Your task to perform on an android device: star an email in the gmail app Image 0: 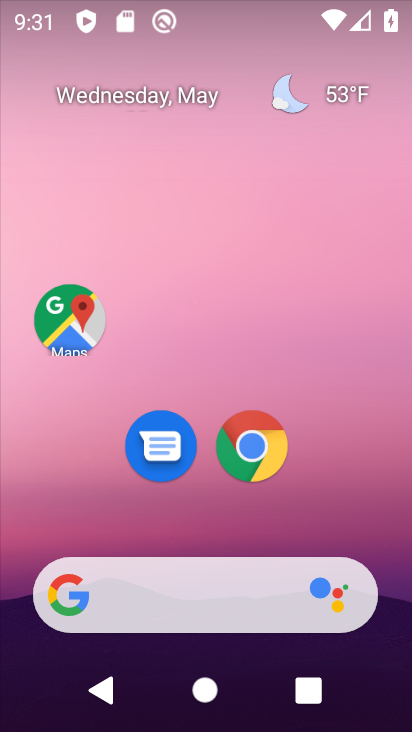
Step 0: drag from (368, 538) to (323, 181)
Your task to perform on an android device: star an email in the gmail app Image 1: 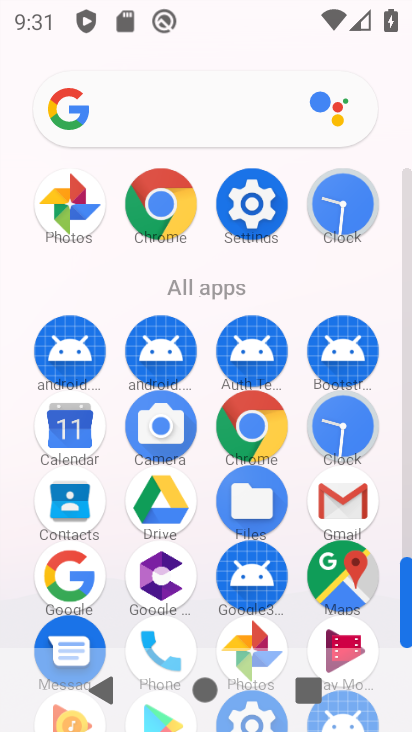
Step 1: click (357, 508)
Your task to perform on an android device: star an email in the gmail app Image 2: 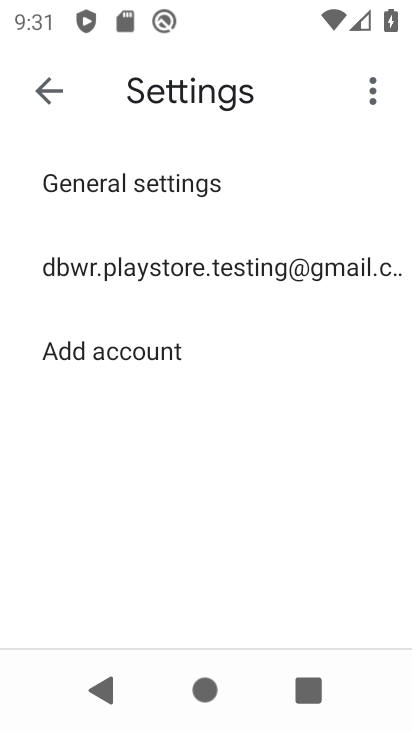
Step 2: click (217, 276)
Your task to perform on an android device: star an email in the gmail app Image 3: 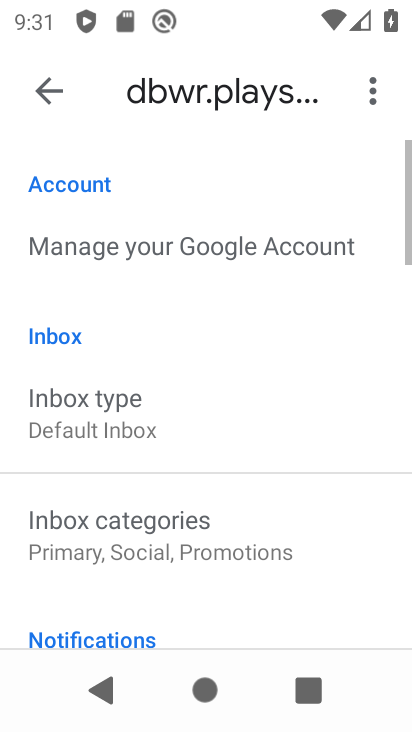
Step 3: click (50, 81)
Your task to perform on an android device: star an email in the gmail app Image 4: 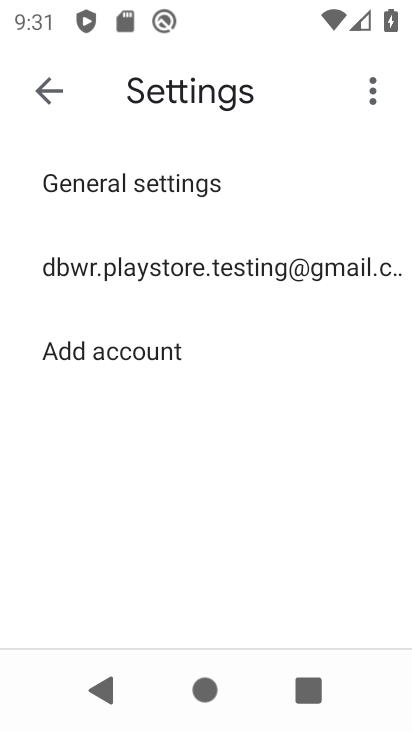
Step 4: click (50, 81)
Your task to perform on an android device: star an email in the gmail app Image 5: 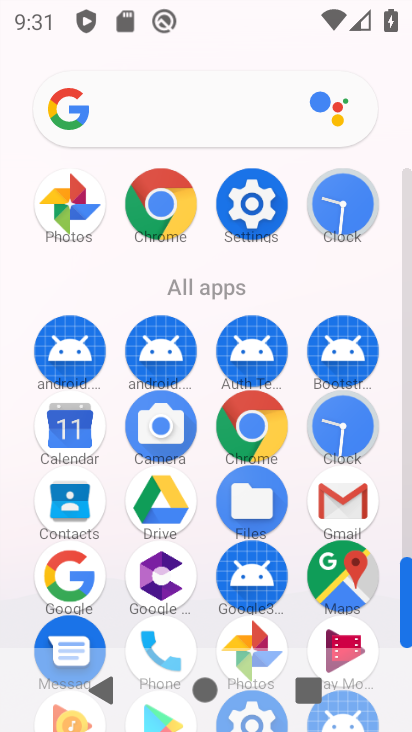
Step 5: click (314, 503)
Your task to perform on an android device: star an email in the gmail app Image 6: 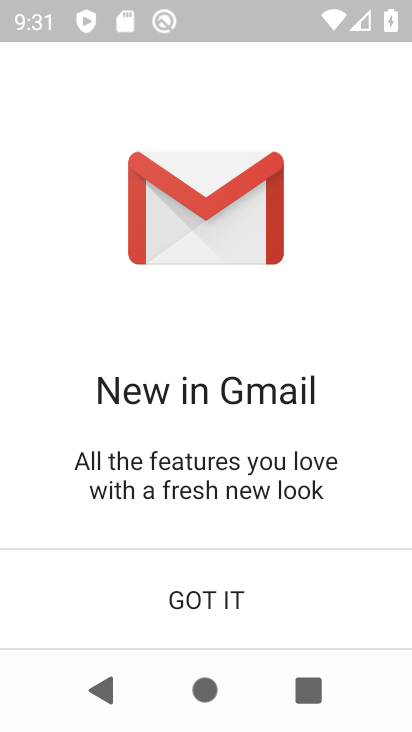
Step 6: click (236, 575)
Your task to perform on an android device: star an email in the gmail app Image 7: 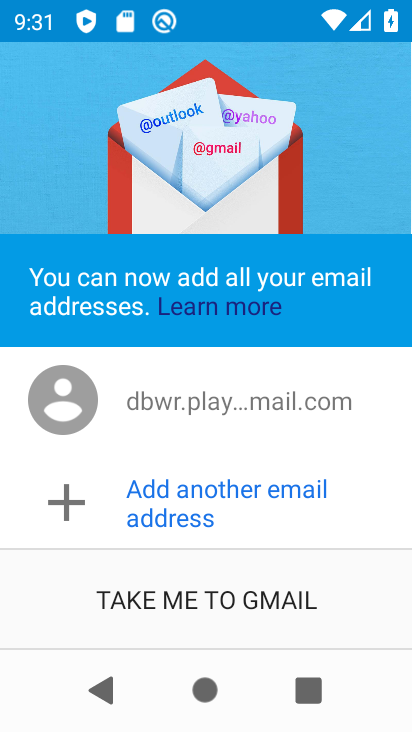
Step 7: click (237, 585)
Your task to perform on an android device: star an email in the gmail app Image 8: 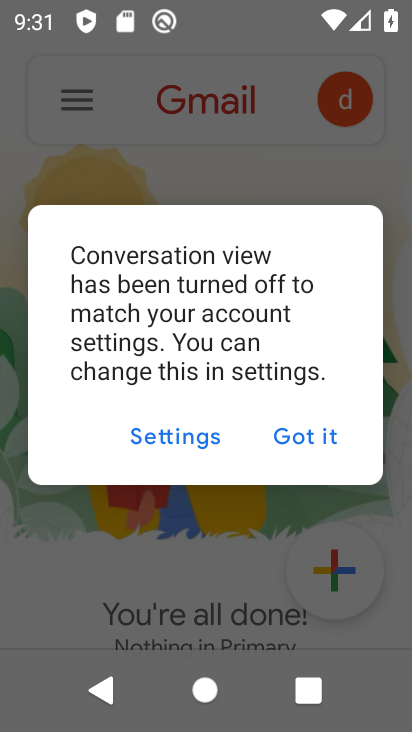
Step 8: click (302, 427)
Your task to perform on an android device: star an email in the gmail app Image 9: 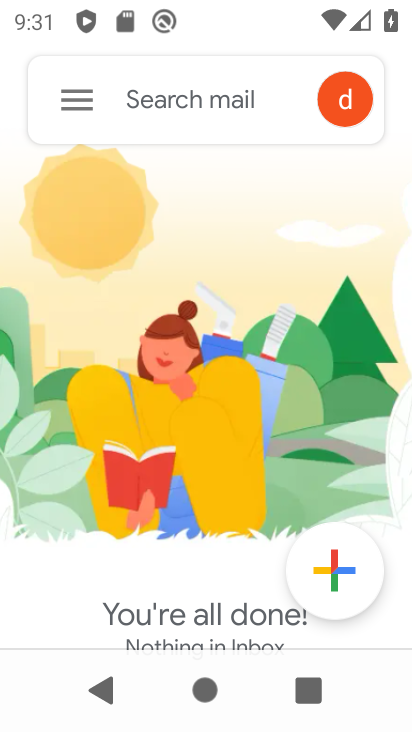
Step 9: click (81, 95)
Your task to perform on an android device: star an email in the gmail app Image 10: 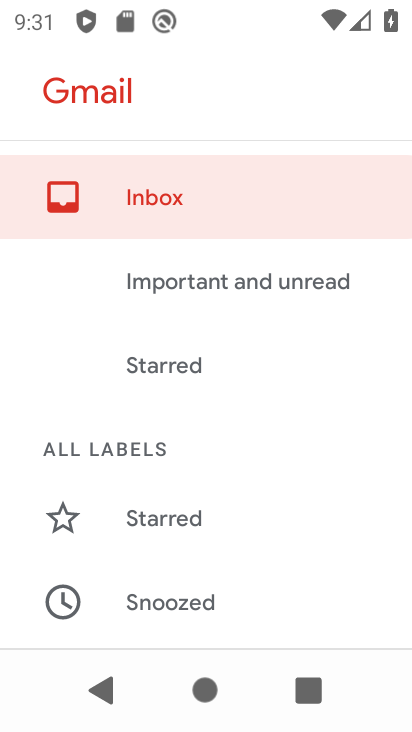
Step 10: drag from (227, 519) to (188, 163)
Your task to perform on an android device: star an email in the gmail app Image 11: 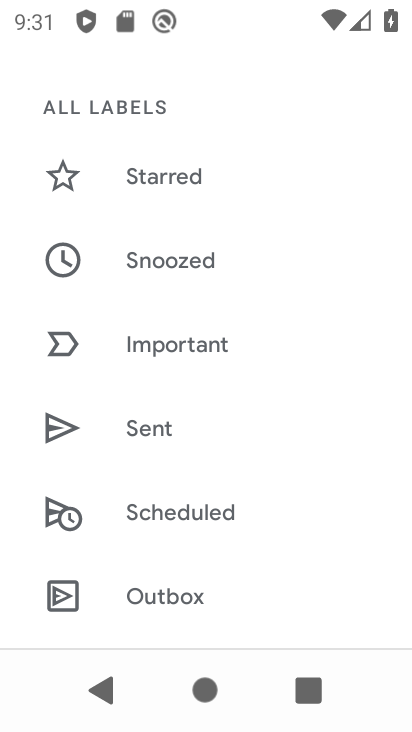
Step 11: drag from (224, 502) to (191, 288)
Your task to perform on an android device: star an email in the gmail app Image 12: 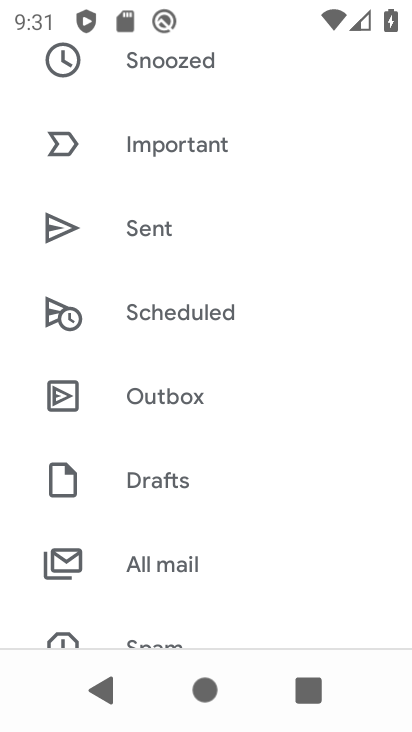
Step 12: click (192, 570)
Your task to perform on an android device: star an email in the gmail app Image 13: 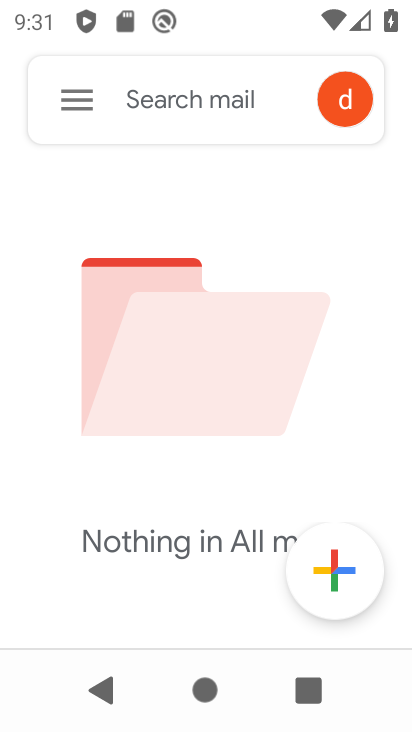
Step 13: task complete